Your task to perform on an android device: turn pop-ups on in chrome Image 0: 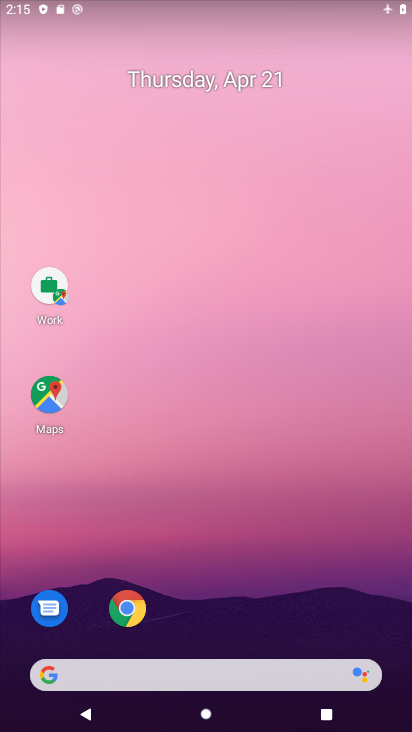
Step 0: click (113, 616)
Your task to perform on an android device: turn pop-ups on in chrome Image 1: 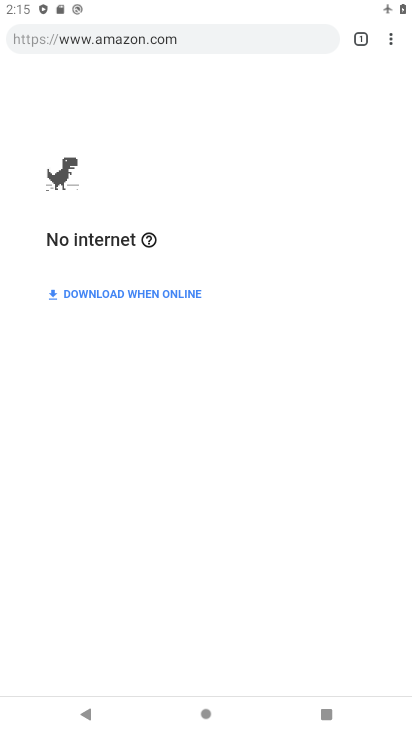
Step 1: click (392, 38)
Your task to perform on an android device: turn pop-ups on in chrome Image 2: 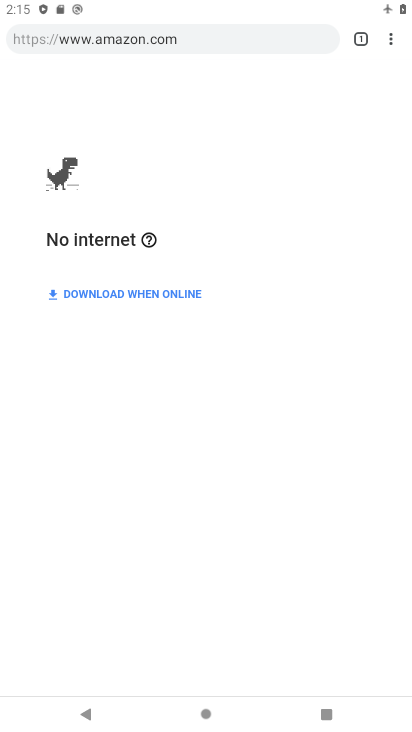
Step 2: click (392, 38)
Your task to perform on an android device: turn pop-ups on in chrome Image 3: 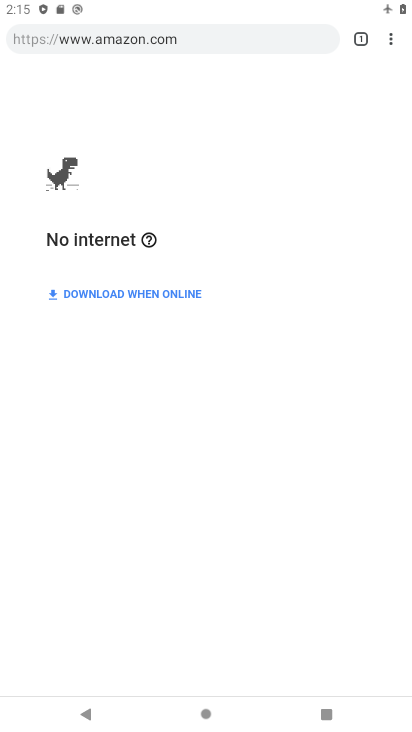
Step 3: click (392, 38)
Your task to perform on an android device: turn pop-ups on in chrome Image 4: 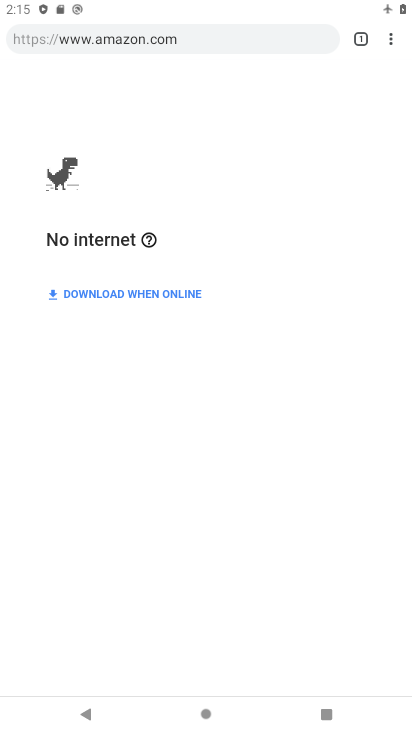
Step 4: click (382, 41)
Your task to perform on an android device: turn pop-ups on in chrome Image 5: 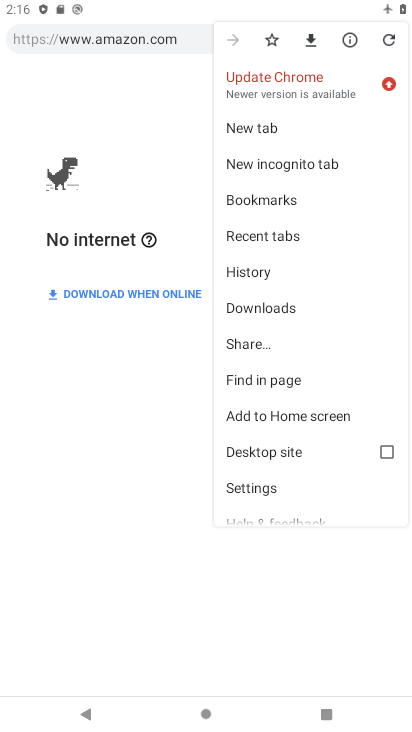
Step 5: click (262, 487)
Your task to perform on an android device: turn pop-ups on in chrome Image 6: 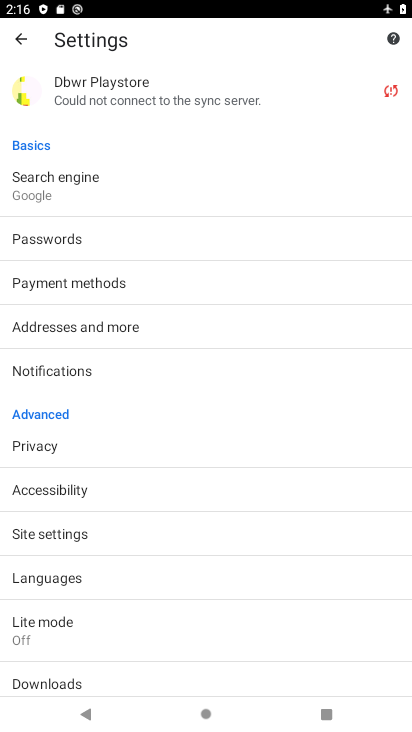
Step 6: click (52, 543)
Your task to perform on an android device: turn pop-ups on in chrome Image 7: 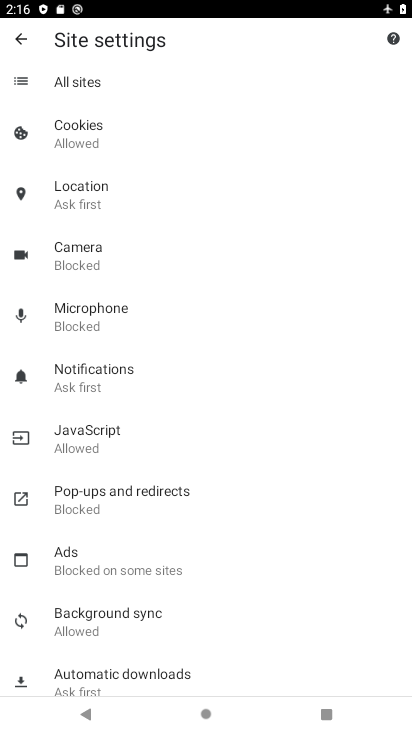
Step 7: click (118, 523)
Your task to perform on an android device: turn pop-ups on in chrome Image 8: 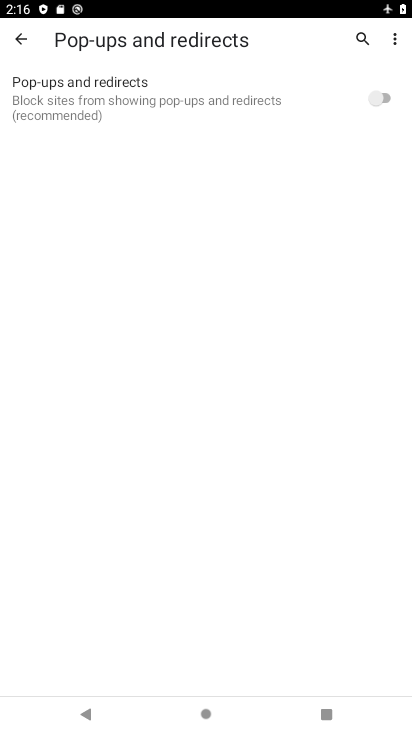
Step 8: click (383, 94)
Your task to perform on an android device: turn pop-ups on in chrome Image 9: 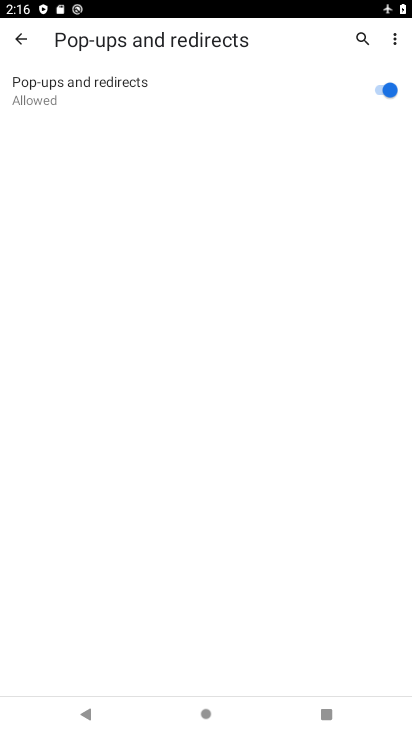
Step 9: task complete